Your task to perform on an android device: turn off notifications settings in the gmail app Image 0: 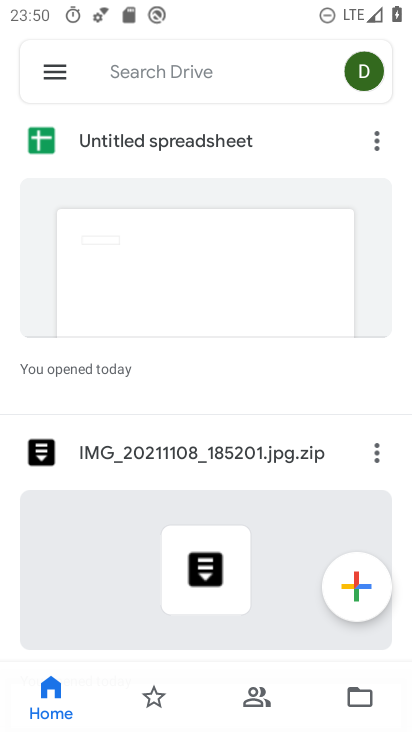
Step 0: press home button
Your task to perform on an android device: turn off notifications settings in the gmail app Image 1: 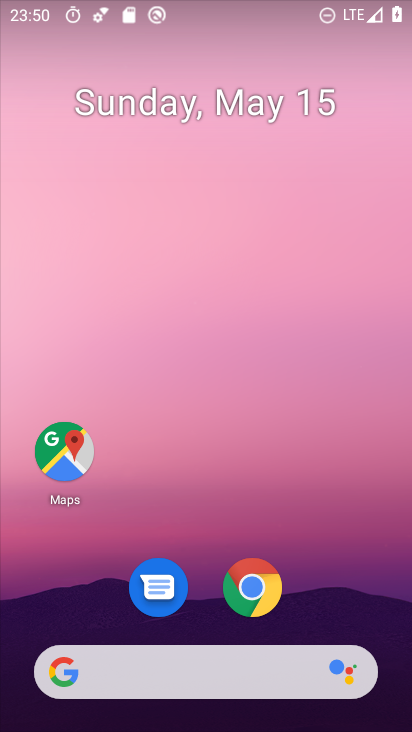
Step 1: drag from (206, 612) to (213, 167)
Your task to perform on an android device: turn off notifications settings in the gmail app Image 2: 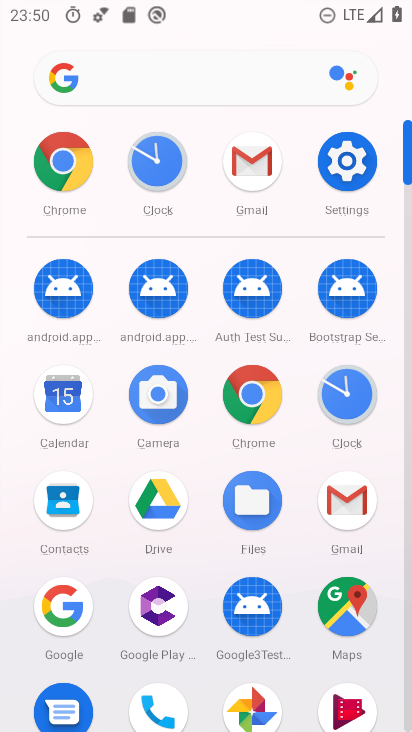
Step 2: click (241, 162)
Your task to perform on an android device: turn off notifications settings in the gmail app Image 3: 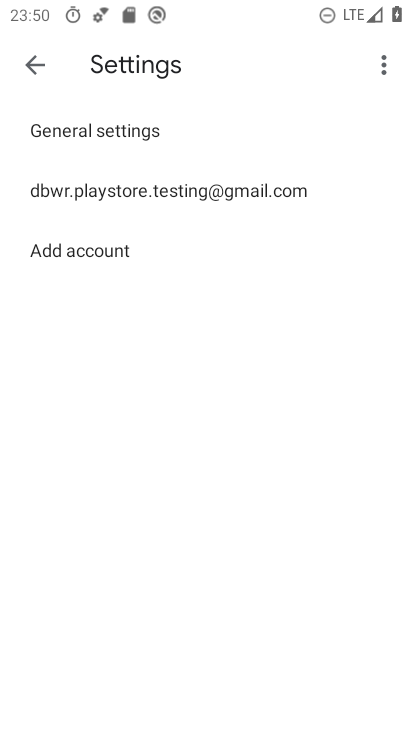
Step 3: click (30, 64)
Your task to perform on an android device: turn off notifications settings in the gmail app Image 4: 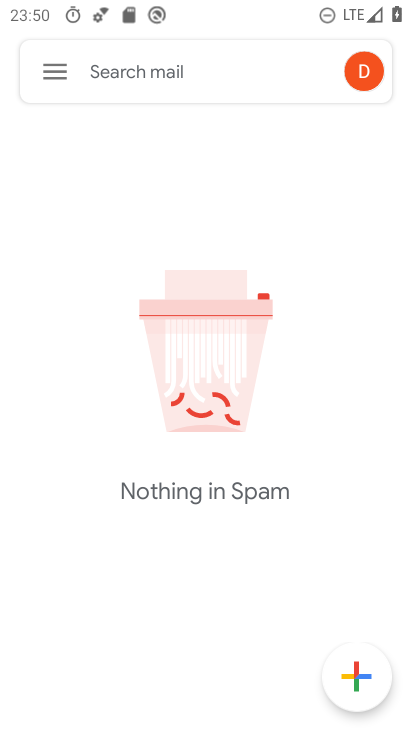
Step 4: click (30, 64)
Your task to perform on an android device: turn off notifications settings in the gmail app Image 5: 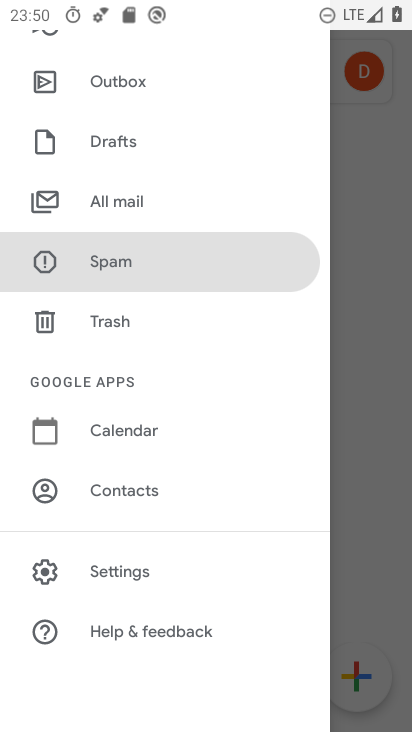
Step 5: click (139, 571)
Your task to perform on an android device: turn off notifications settings in the gmail app Image 6: 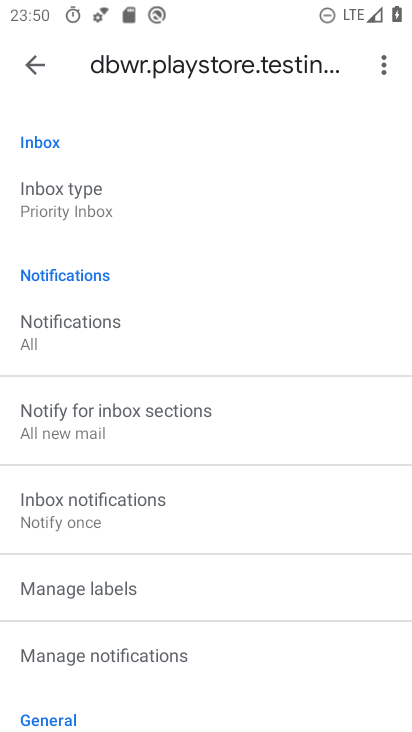
Step 6: click (145, 646)
Your task to perform on an android device: turn off notifications settings in the gmail app Image 7: 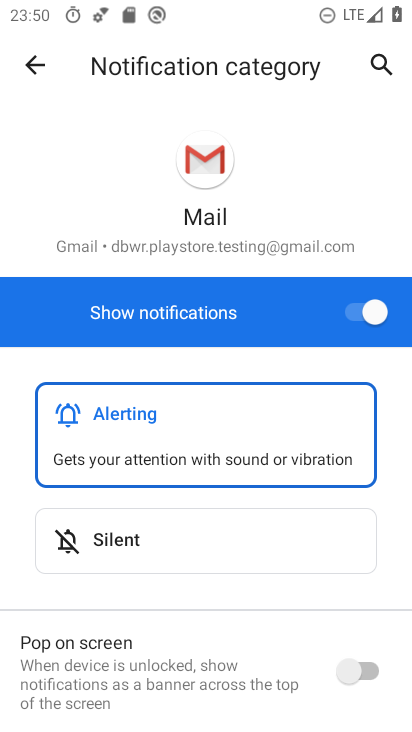
Step 7: click (358, 313)
Your task to perform on an android device: turn off notifications settings in the gmail app Image 8: 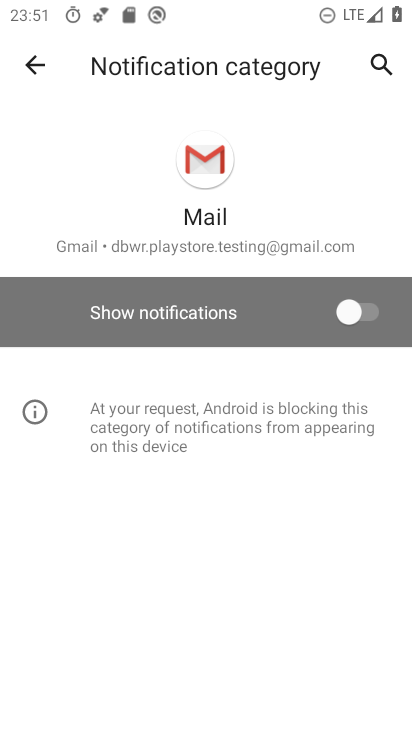
Step 8: task complete